Your task to perform on an android device: Check the news Image 0: 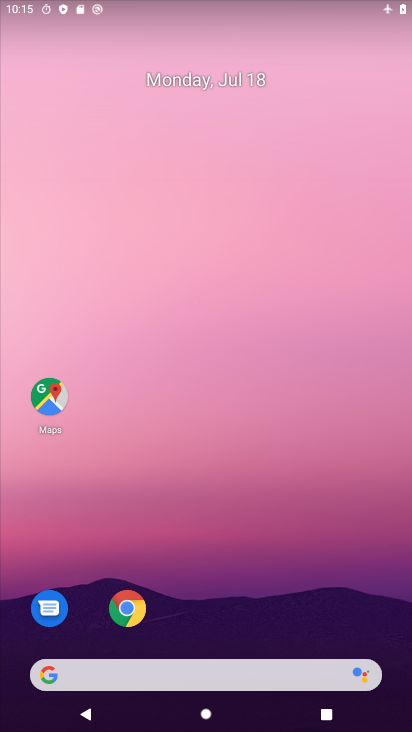
Step 0: drag from (266, 606) to (229, 116)
Your task to perform on an android device: Check the news Image 1: 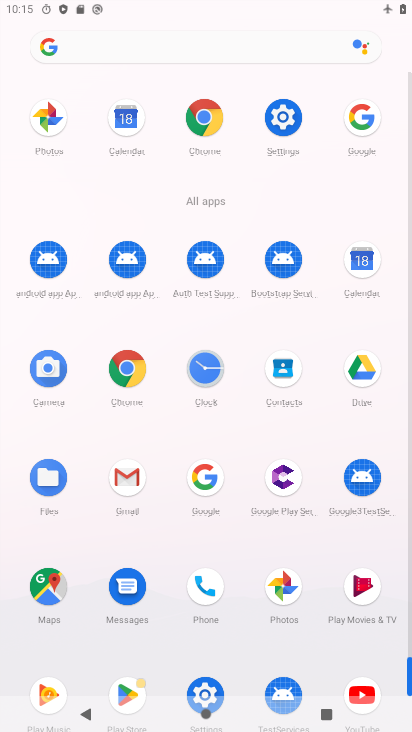
Step 1: click (203, 123)
Your task to perform on an android device: Check the news Image 2: 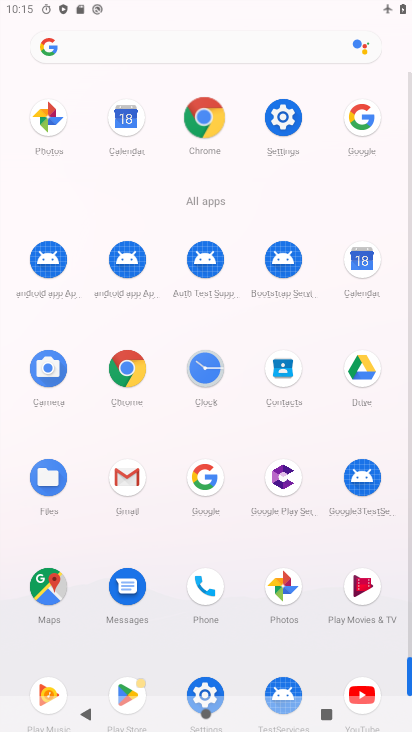
Step 2: click (215, 129)
Your task to perform on an android device: Check the news Image 3: 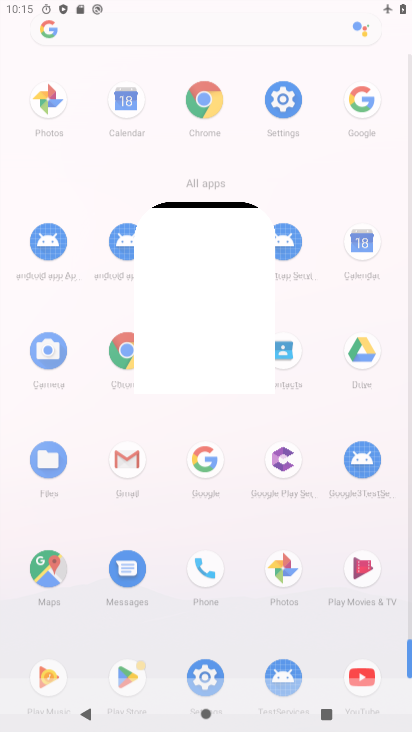
Step 3: click (216, 128)
Your task to perform on an android device: Check the news Image 4: 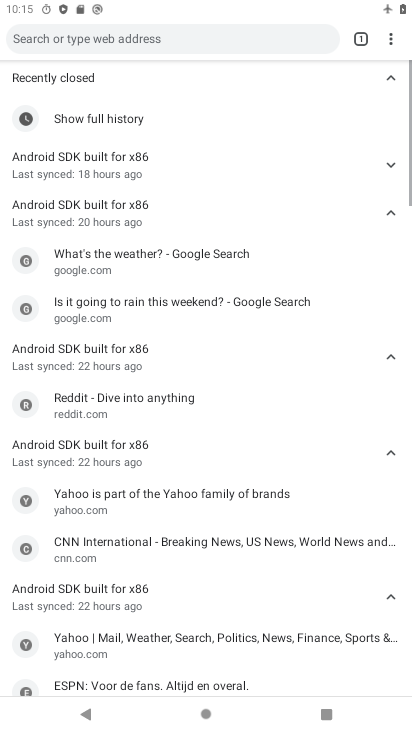
Step 4: task complete